Your task to perform on an android device: Go to location settings Image 0: 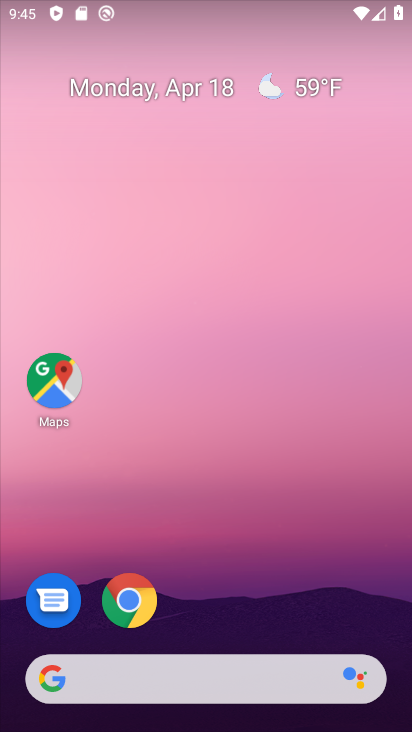
Step 0: drag from (233, 586) to (219, 1)
Your task to perform on an android device: Go to location settings Image 1: 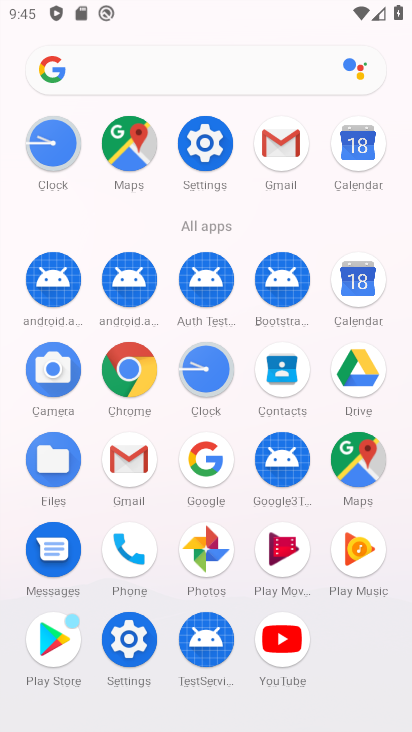
Step 1: click (204, 141)
Your task to perform on an android device: Go to location settings Image 2: 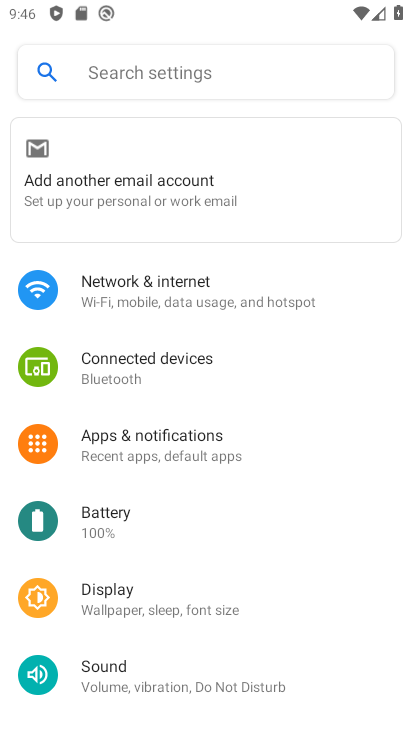
Step 2: drag from (215, 574) to (203, 129)
Your task to perform on an android device: Go to location settings Image 3: 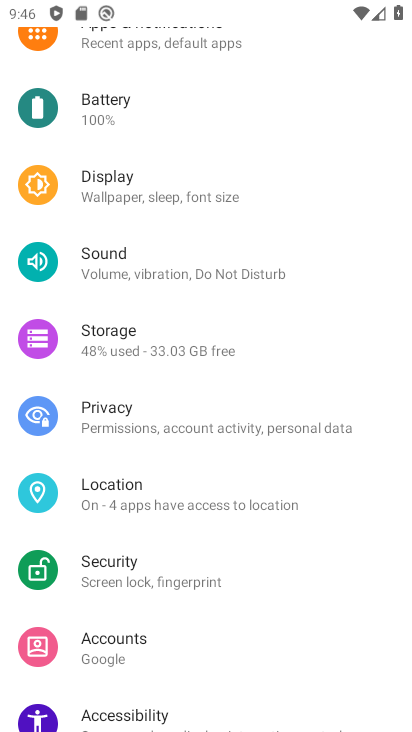
Step 3: click (106, 477)
Your task to perform on an android device: Go to location settings Image 4: 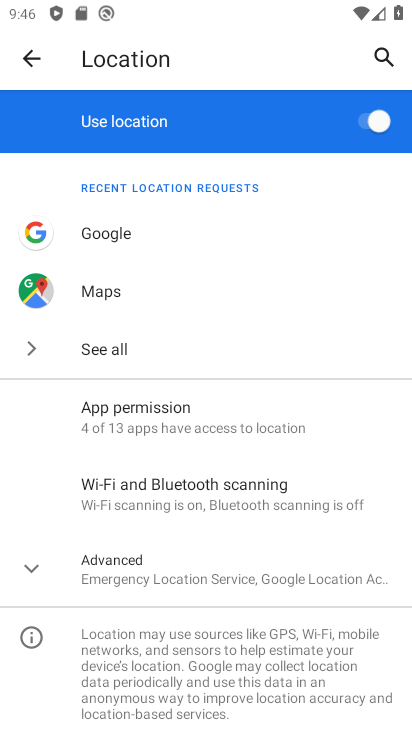
Step 4: task complete